Your task to perform on an android device: toggle priority inbox in the gmail app Image 0: 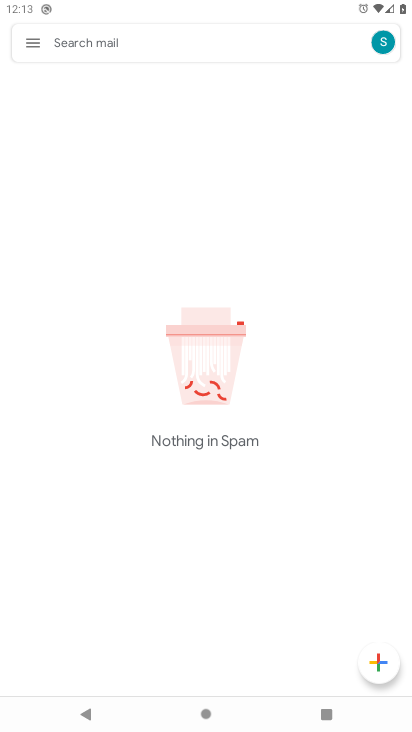
Step 0: press home button
Your task to perform on an android device: toggle priority inbox in the gmail app Image 1: 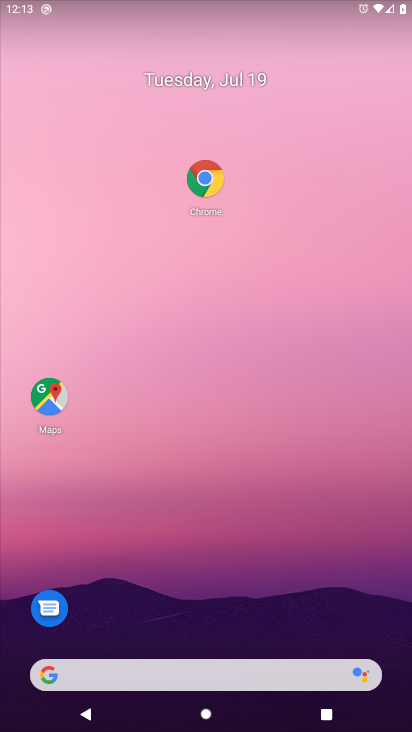
Step 1: drag from (28, 715) to (248, 72)
Your task to perform on an android device: toggle priority inbox in the gmail app Image 2: 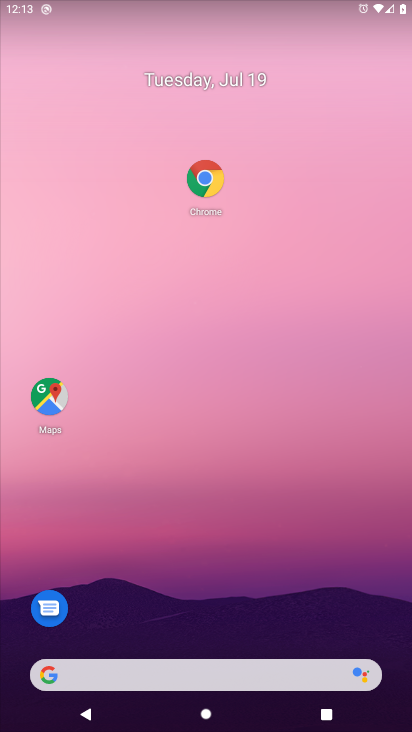
Step 2: drag from (106, 563) to (219, 121)
Your task to perform on an android device: toggle priority inbox in the gmail app Image 3: 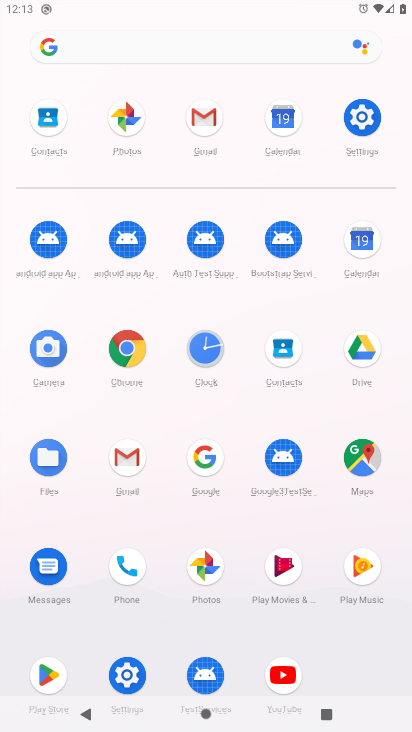
Step 3: click (119, 461)
Your task to perform on an android device: toggle priority inbox in the gmail app Image 4: 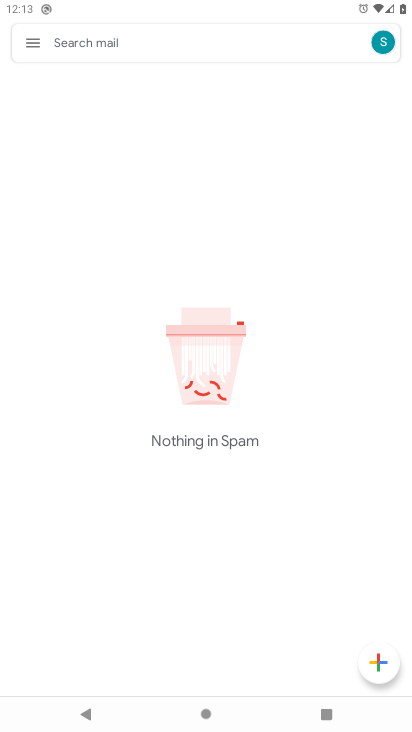
Step 4: click (30, 34)
Your task to perform on an android device: toggle priority inbox in the gmail app Image 5: 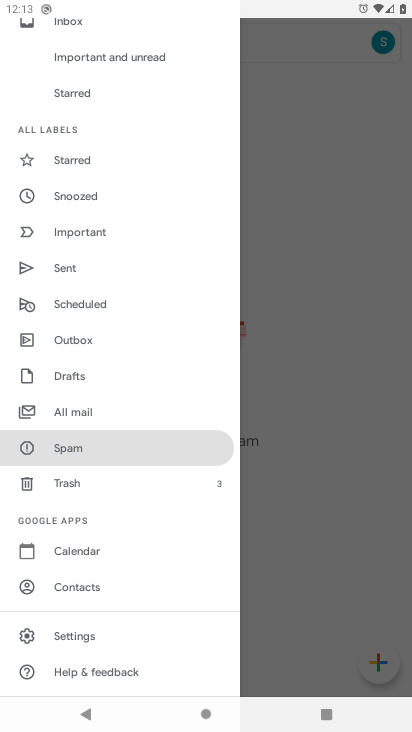
Step 5: click (56, 637)
Your task to perform on an android device: toggle priority inbox in the gmail app Image 6: 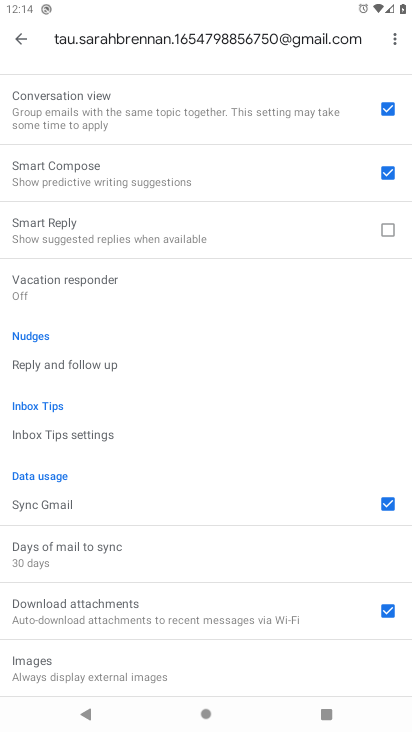
Step 6: click (21, 38)
Your task to perform on an android device: toggle priority inbox in the gmail app Image 7: 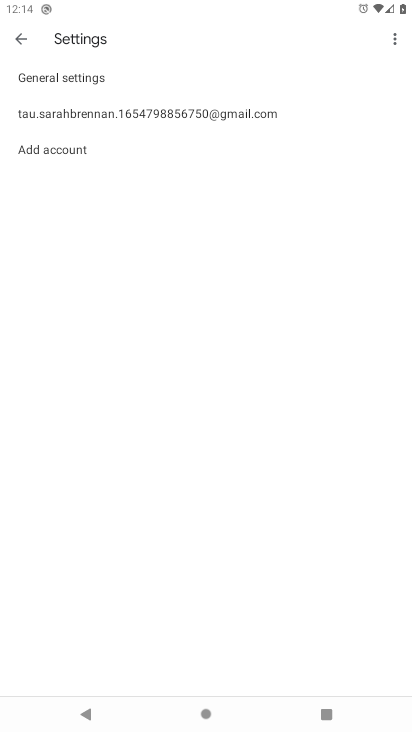
Step 7: click (69, 110)
Your task to perform on an android device: toggle priority inbox in the gmail app Image 8: 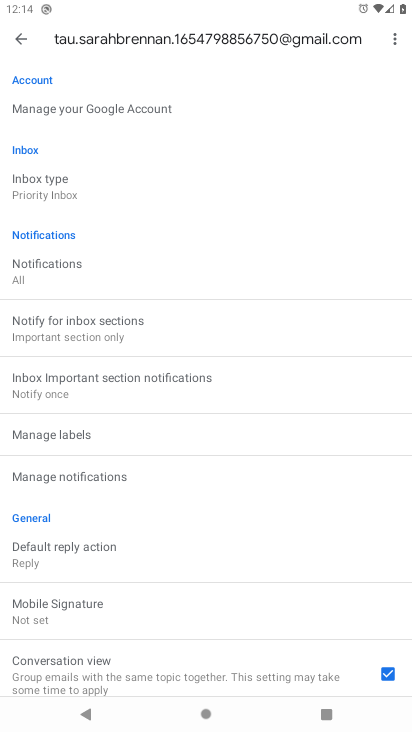
Step 8: click (69, 185)
Your task to perform on an android device: toggle priority inbox in the gmail app Image 9: 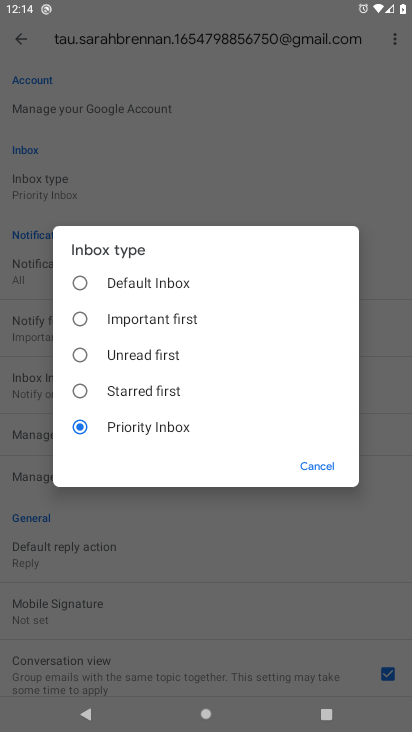
Step 9: task complete